Your task to perform on an android device: Go to Wikipedia Image 0: 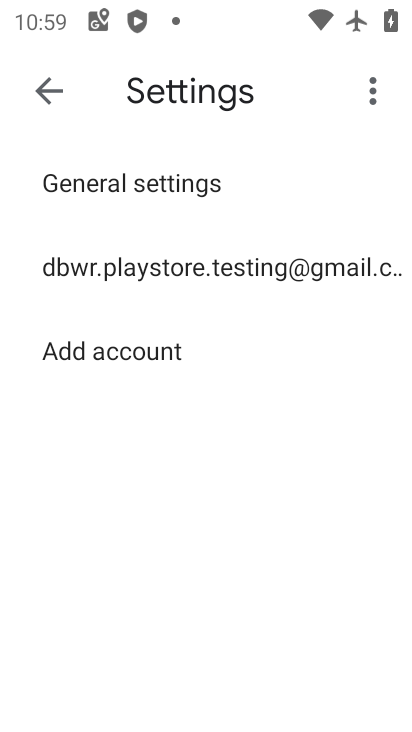
Step 0: press home button
Your task to perform on an android device: Go to Wikipedia Image 1: 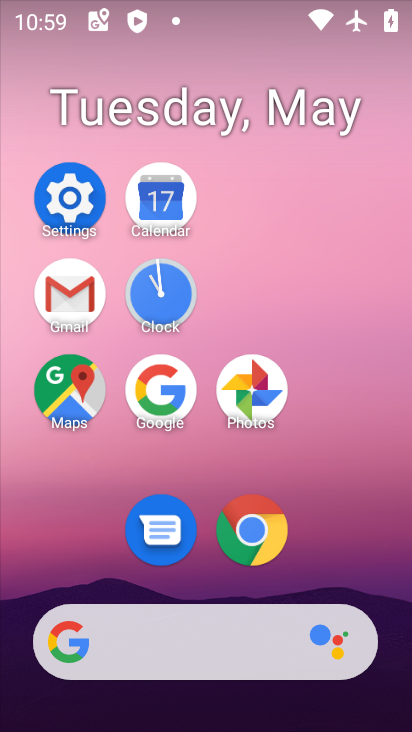
Step 1: click (240, 527)
Your task to perform on an android device: Go to Wikipedia Image 2: 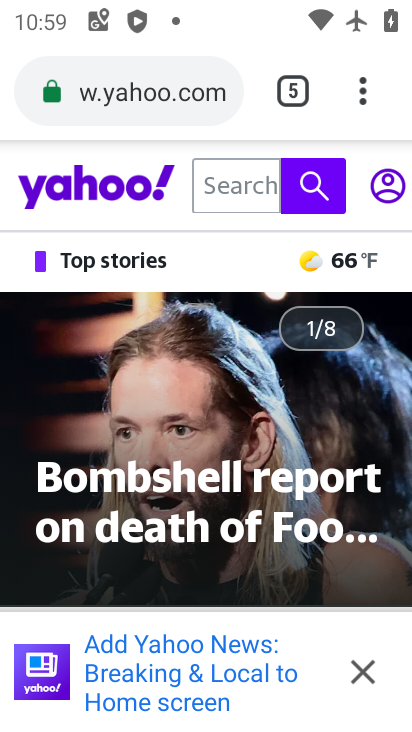
Step 2: click (300, 92)
Your task to perform on an android device: Go to Wikipedia Image 3: 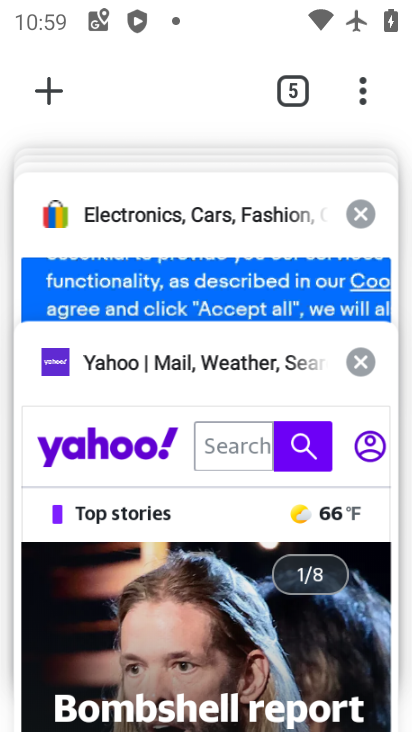
Step 3: drag from (222, 172) to (233, 537)
Your task to perform on an android device: Go to Wikipedia Image 4: 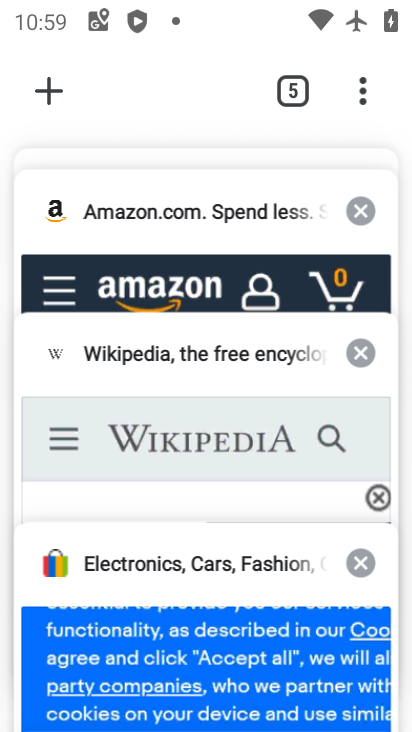
Step 4: click (199, 433)
Your task to perform on an android device: Go to Wikipedia Image 5: 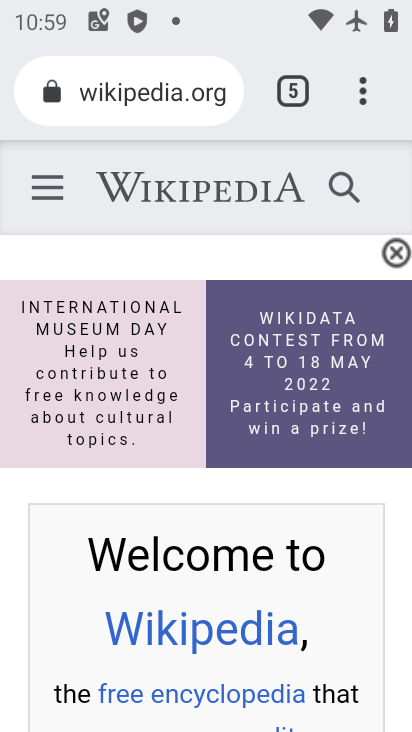
Step 5: task complete